Your task to perform on an android device: Open the calendar app, open the side menu, and click the "Day" option Image 0: 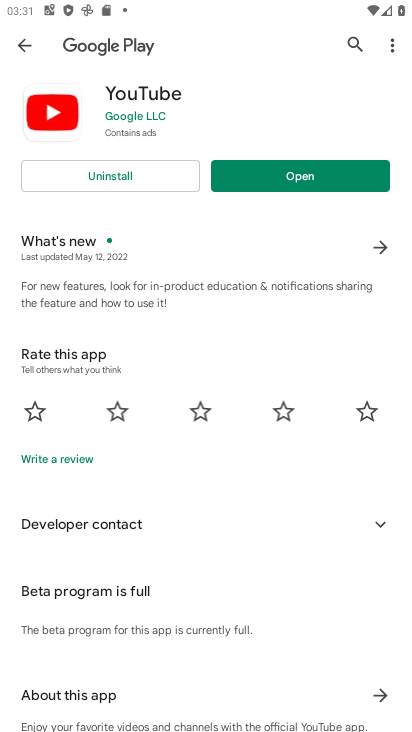
Step 0: press home button
Your task to perform on an android device: Open the calendar app, open the side menu, and click the "Day" option Image 1: 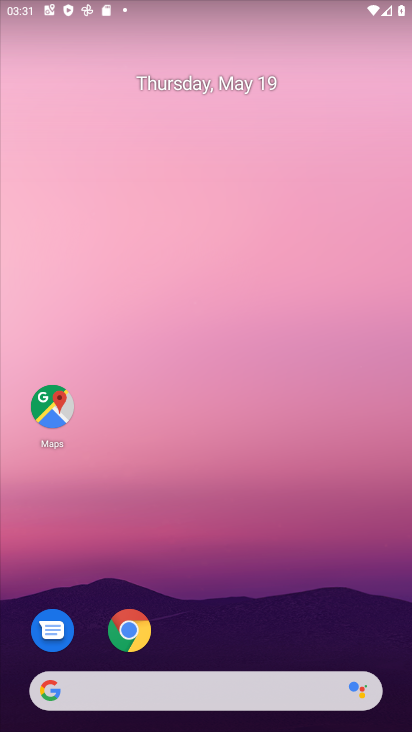
Step 1: drag from (368, 644) to (343, 81)
Your task to perform on an android device: Open the calendar app, open the side menu, and click the "Day" option Image 2: 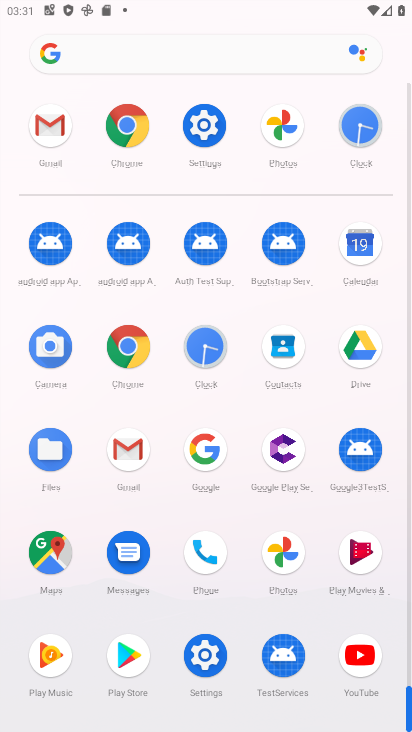
Step 2: click (360, 243)
Your task to perform on an android device: Open the calendar app, open the side menu, and click the "Day" option Image 3: 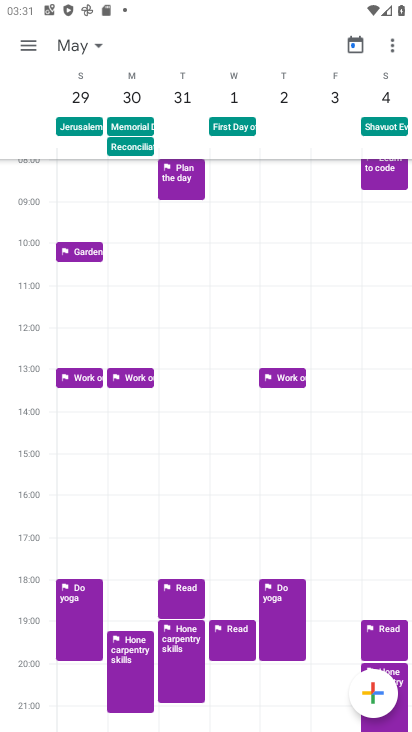
Step 3: click (25, 40)
Your task to perform on an android device: Open the calendar app, open the side menu, and click the "Day" option Image 4: 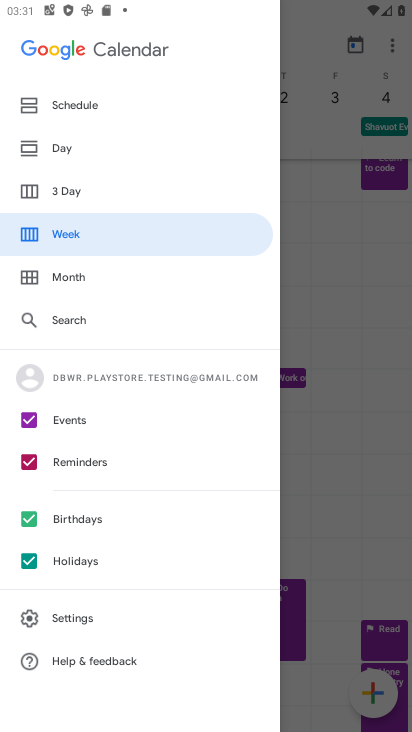
Step 4: click (66, 148)
Your task to perform on an android device: Open the calendar app, open the side menu, and click the "Day" option Image 5: 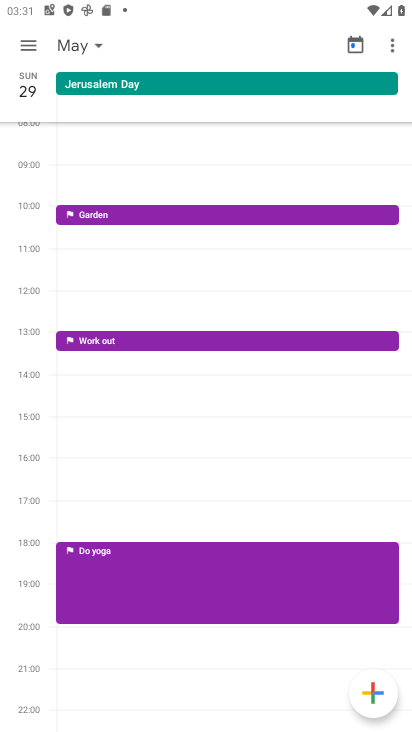
Step 5: task complete